Your task to perform on an android device: See recent photos Image 0: 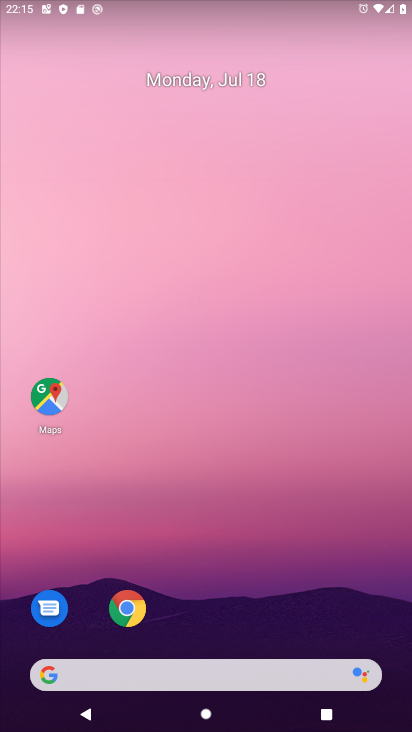
Step 0: drag from (162, 474) to (293, 209)
Your task to perform on an android device: See recent photos Image 1: 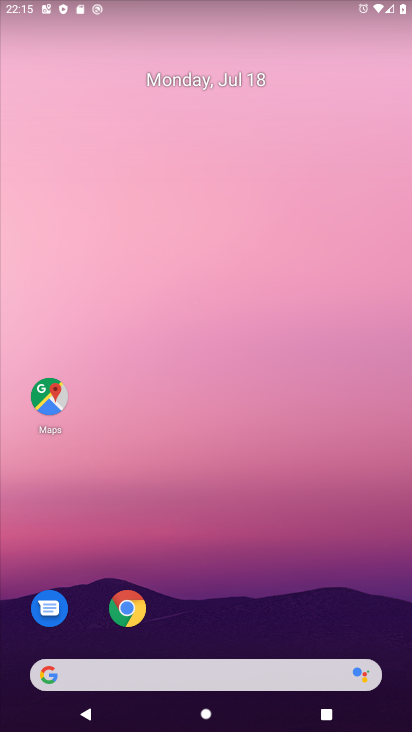
Step 1: drag from (33, 700) to (335, 129)
Your task to perform on an android device: See recent photos Image 2: 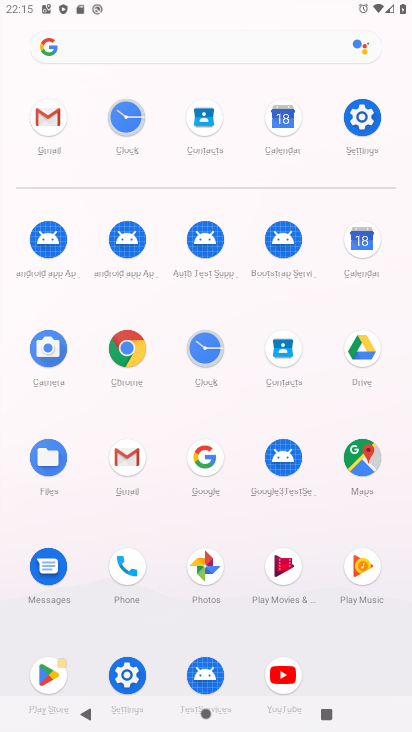
Step 2: click (201, 567)
Your task to perform on an android device: See recent photos Image 3: 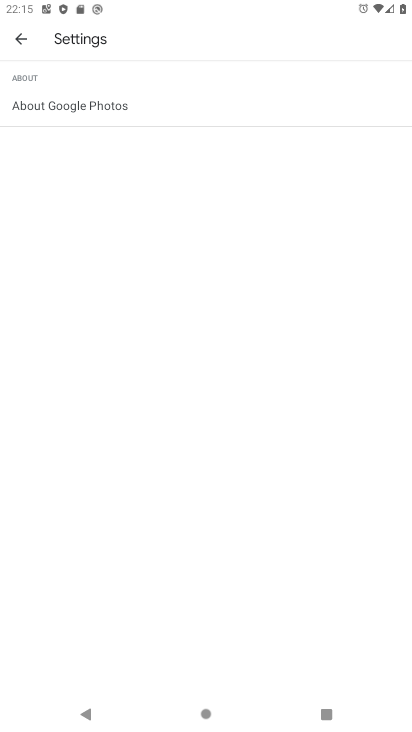
Step 3: click (12, 41)
Your task to perform on an android device: See recent photos Image 4: 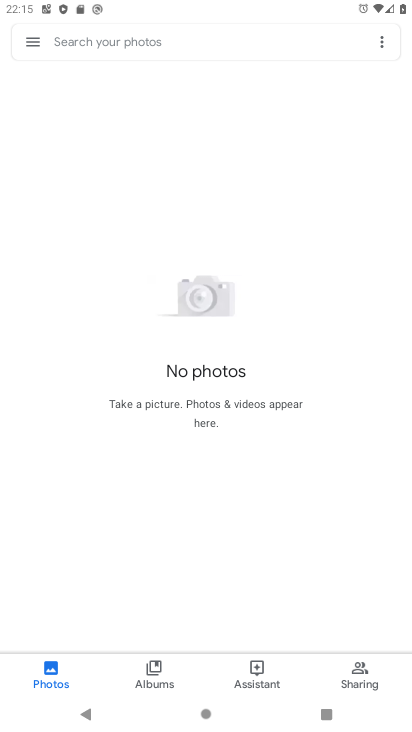
Step 4: task complete